Your task to perform on an android device: open device folders in google photos Image 0: 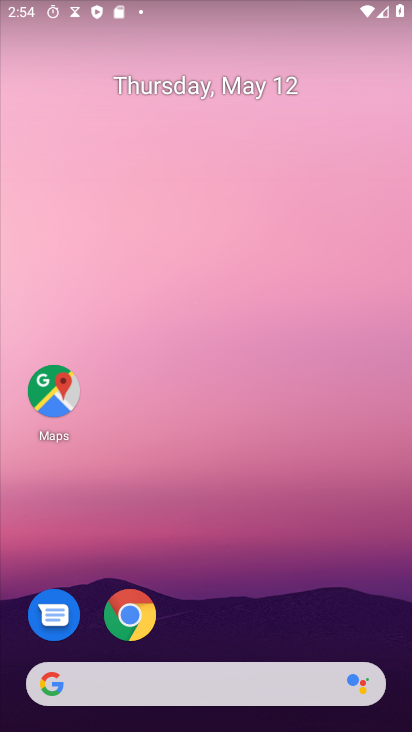
Step 0: drag from (0, 715) to (205, 271)
Your task to perform on an android device: open device folders in google photos Image 1: 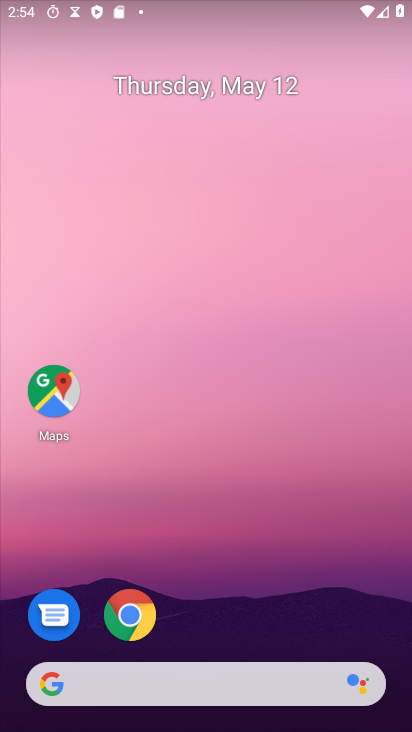
Step 1: drag from (39, 607) to (254, 142)
Your task to perform on an android device: open device folders in google photos Image 2: 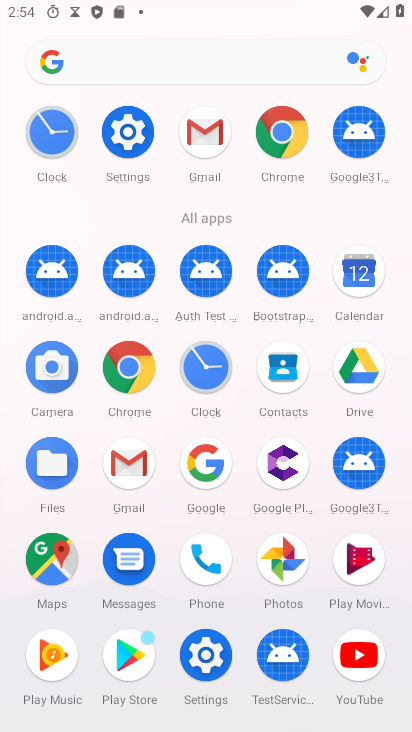
Step 2: click (282, 555)
Your task to perform on an android device: open device folders in google photos Image 3: 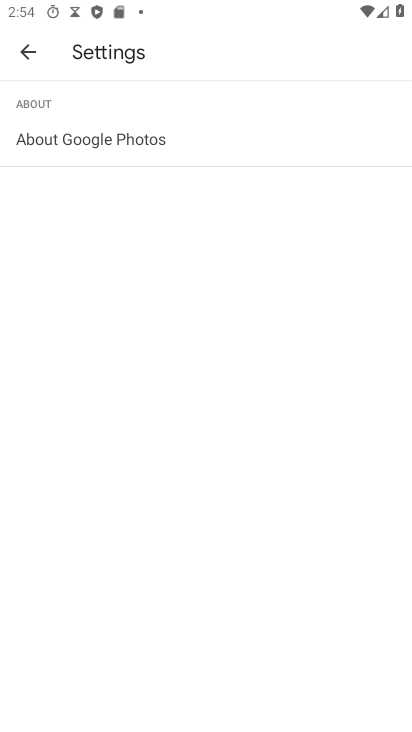
Step 3: press back button
Your task to perform on an android device: open device folders in google photos Image 4: 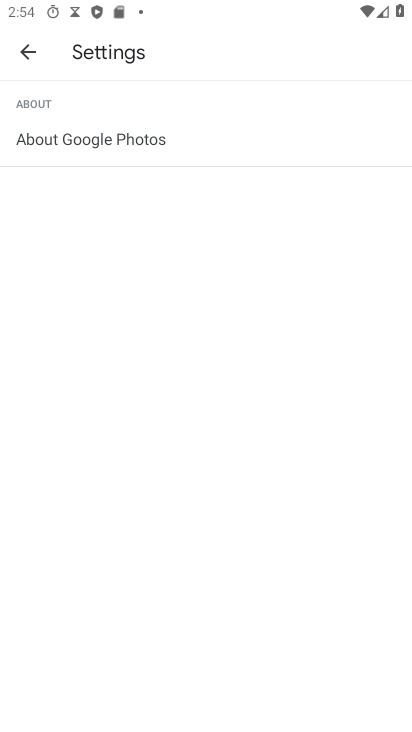
Step 4: press back button
Your task to perform on an android device: open device folders in google photos Image 5: 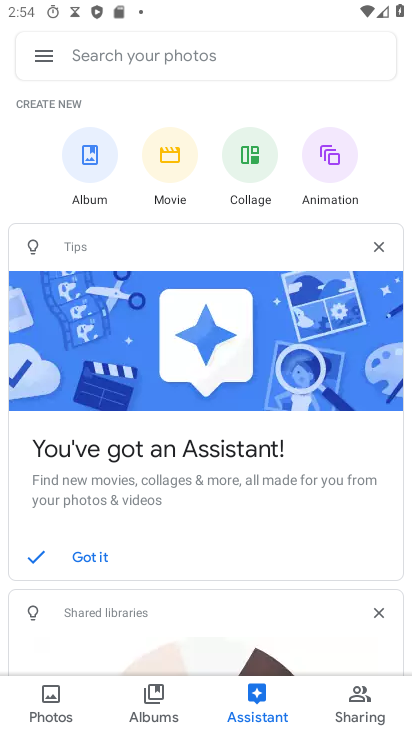
Step 5: click (48, 67)
Your task to perform on an android device: open device folders in google photos Image 6: 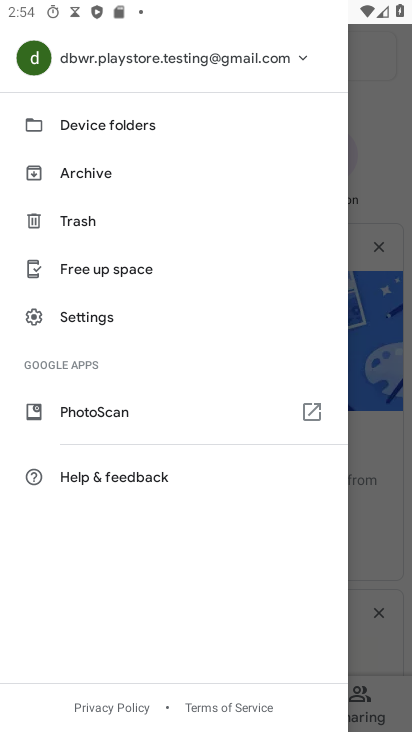
Step 6: click (96, 126)
Your task to perform on an android device: open device folders in google photos Image 7: 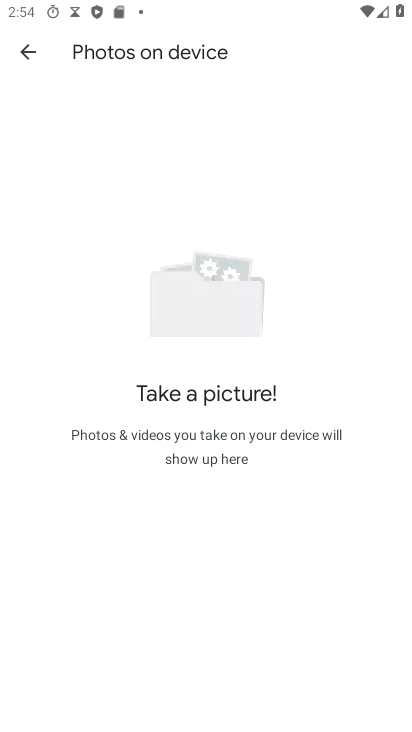
Step 7: task complete